Your task to perform on an android device: Open network settings Image 0: 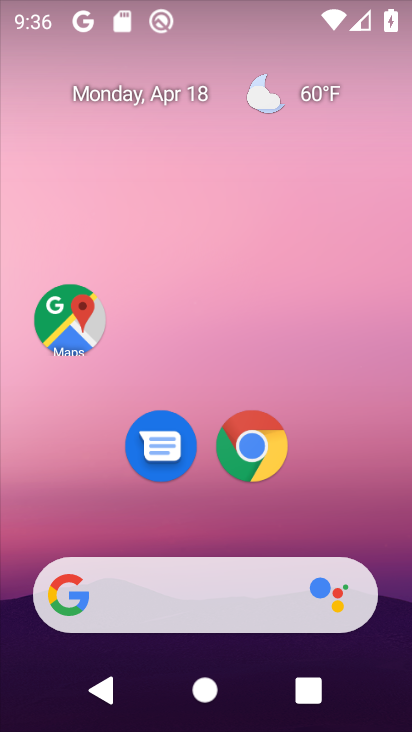
Step 0: drag from (394, 552) to (374, 95)
Your task to perform on an android device: Open network settings Image 1: 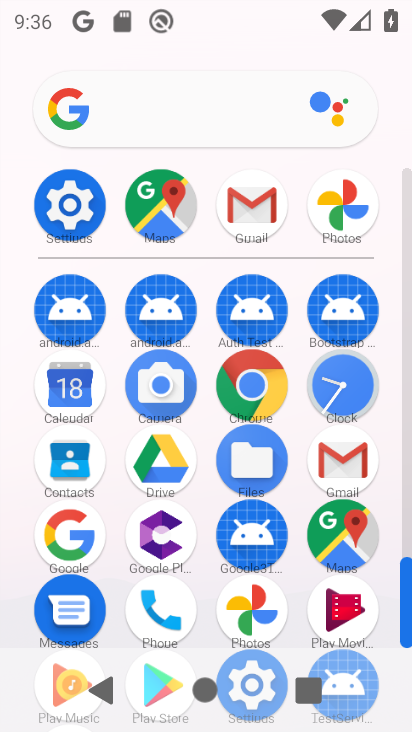
Step 1: click (71, 220)
Your task to perform on an android device: Open network settings Image 2: 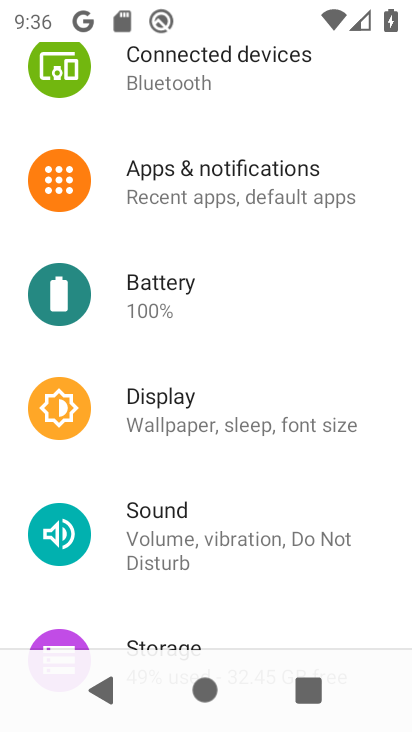
Step 2: drag from (377, 307) to (383, 418)
Your task to perform on an android device: Open network settings Image 3: 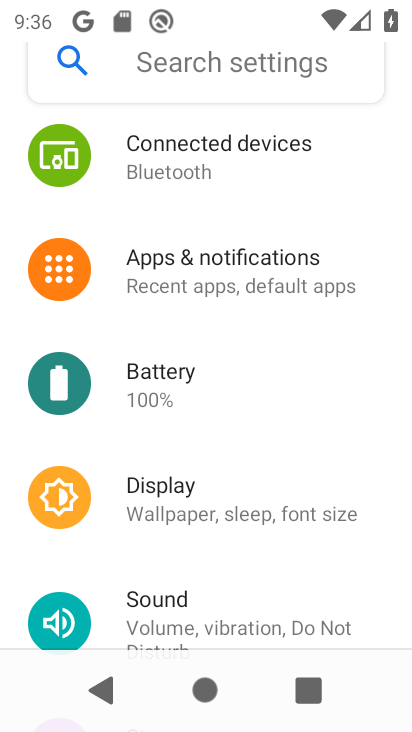
Step 3: drag from (379, 300) to (376, 424)
Your task to perform on an android device: Open network settings Image 4: 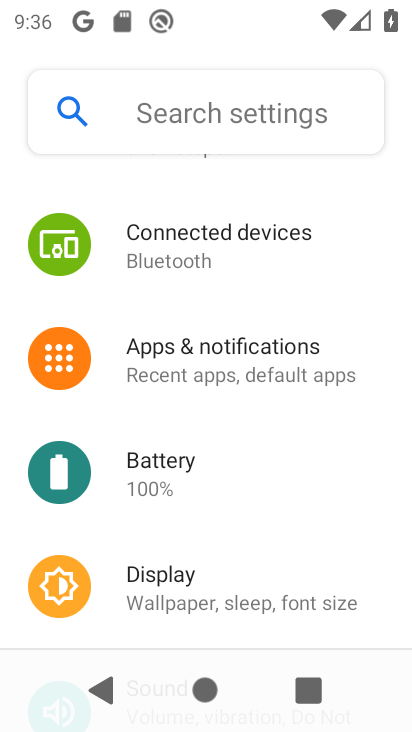
Step 4: drag from (388, 285) to (376, 445)
Your task to perform on an android device: Open network settings Image 5: 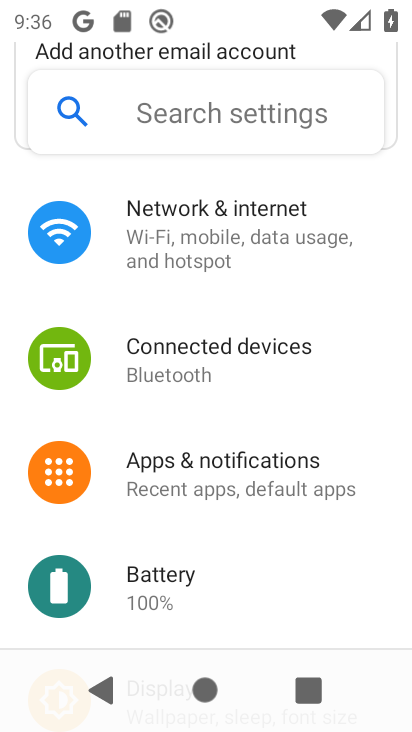
Step 5: drag from (374, 292) to (346, 455)
Your task to perform on an android device: Open network settings Image 6: 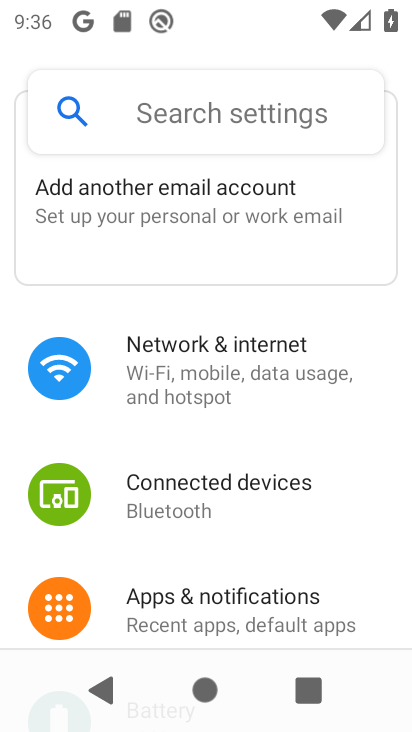
Step 6: click (250, 364)
Your task to perform on an android device: Open network settings Image 7: 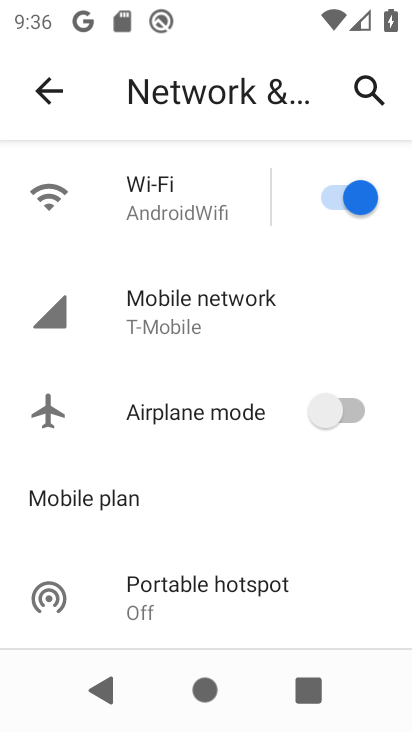
Step 7: task complete